Your task to perform on an android device: see tabs open on other devices in the chrome app Image 0: 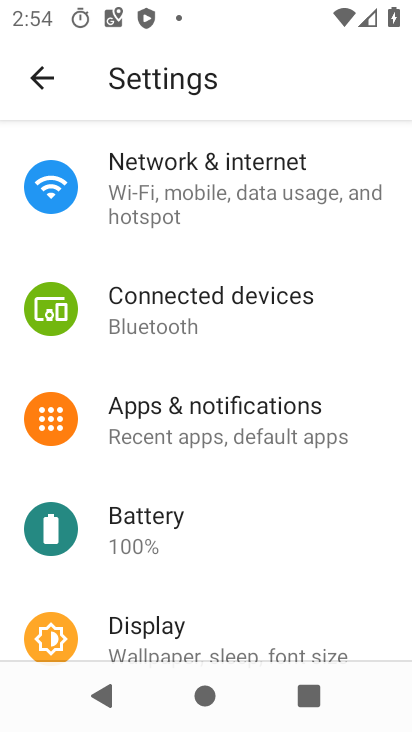
Step 0: press home button
Your task to perform on an android device: see tabs open on other devices in the chrome app Image 1: 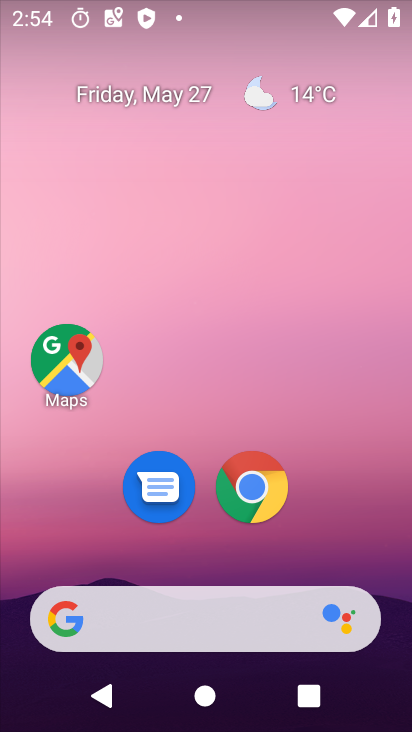
Step 1: click (255, 475)
Your task to perform on an android device: see tabs open on other devices in the chrome app Image 2: 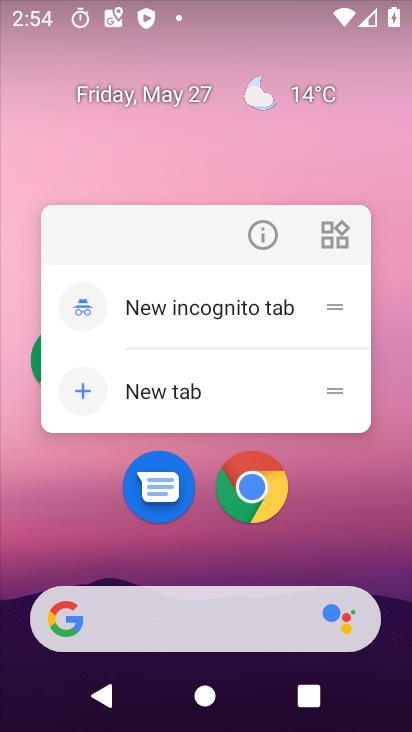
Step 2: click (259, 488)
Your task to perform on an android device: see tabs open on other devices in the chrome app Image 3: 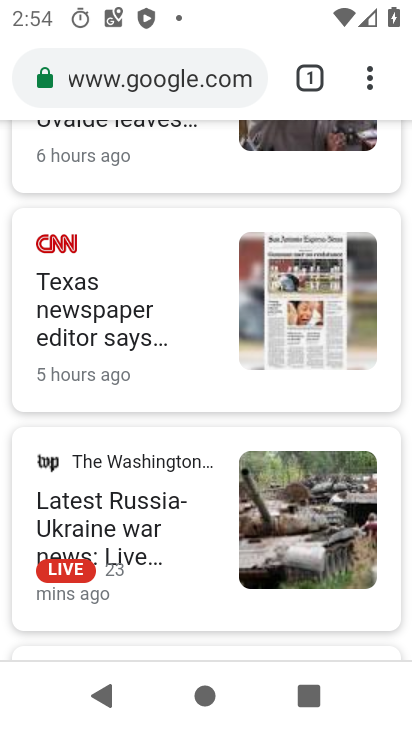
Step 3: task complete